Your task to perform on an android device: Go to Amazon Image 0: 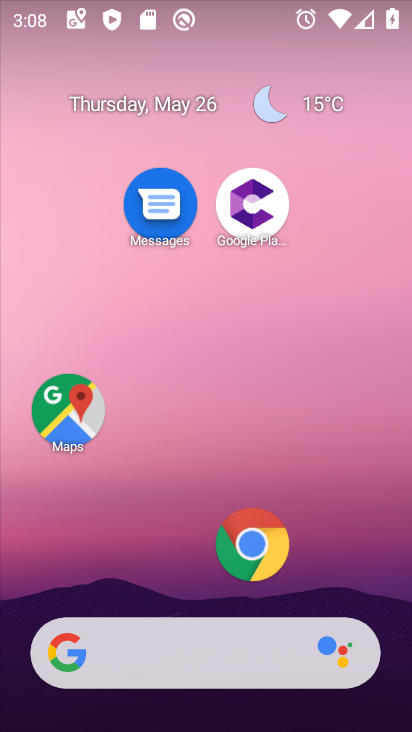
Step 0: click (249, 545)
Your task to perform on an android device: Go to Amazon Image 1: 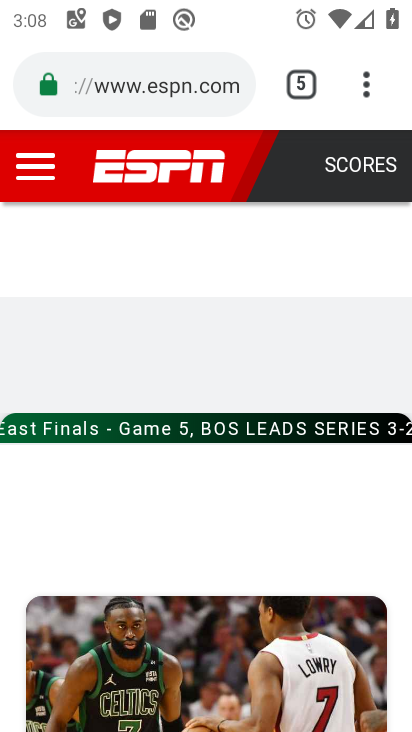
Step 1: click (289, 88)
Your task to perform on an android device: Go to Amazon Image 2: 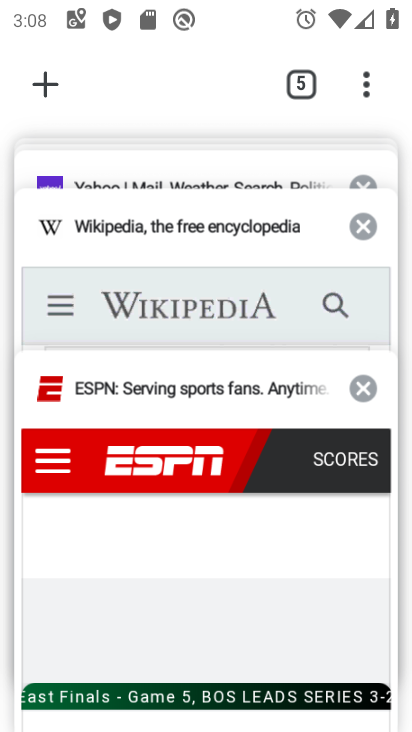
Step 2: click (48, 88)
Your task to perform on an android device: Go to Amazon Image 3: 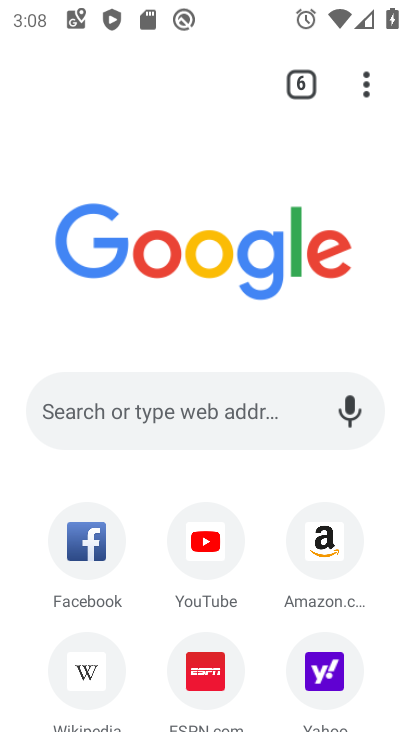
Step 3: click (327, 548)
Your task to perform on an android device: Go to Amazon Image 4: 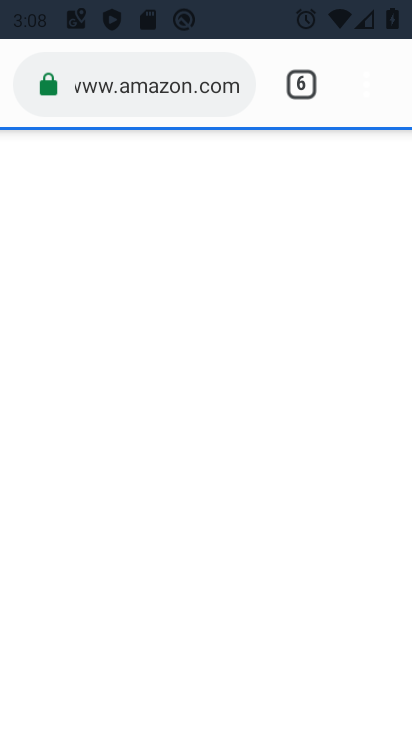
Step 4: click (334, 519)
Your task to perform on an android device: Go to Amazon Image 5: 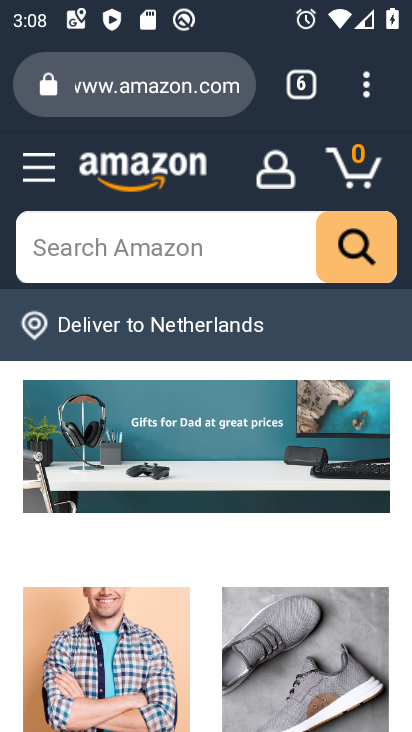
Step 5: task complete